Your task to perform on an android device: What's the weather going to be tomorrow? Image 0: 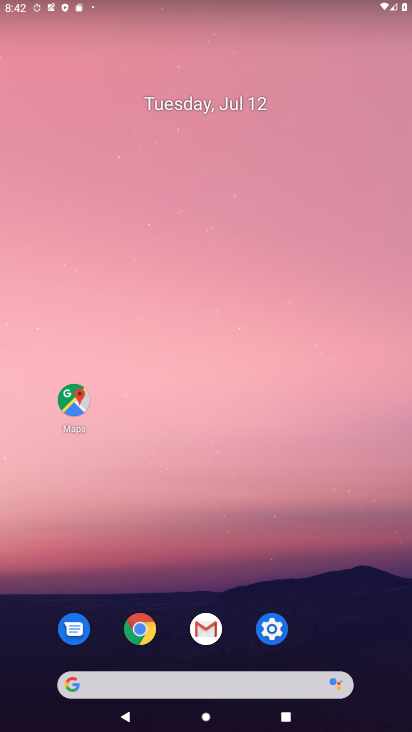
Step 0: click (232, 689)
Your task to perform on an android device: What's the weather going to be tomorrow? Image 1: 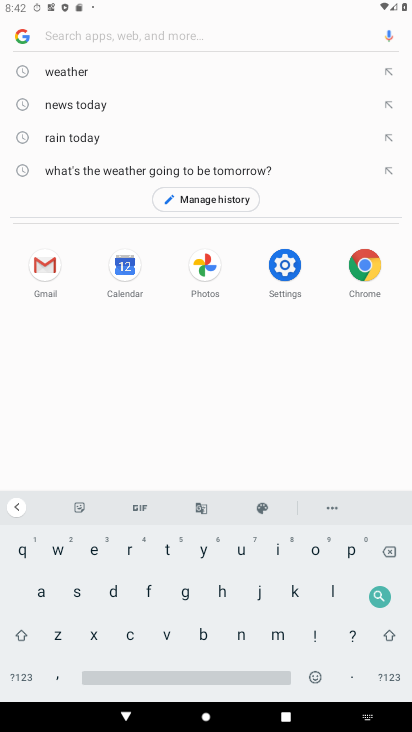
Step 1: click (87, 80)
Your task to perform on an android device: What's the weather going to be tomorrow? Image 2: 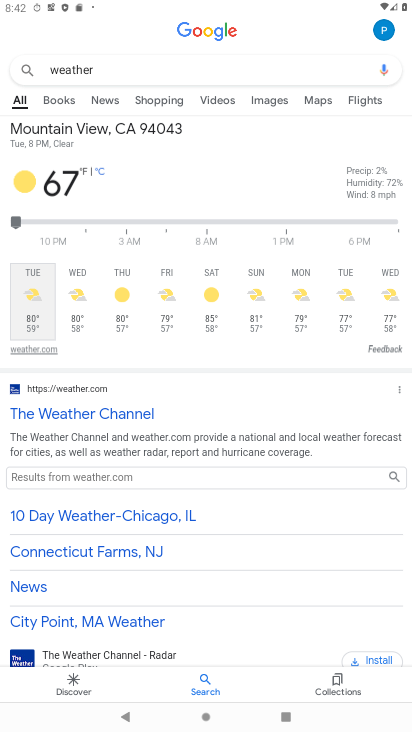
Step 2: click (81, 414)
Your task to perform on an android device: What's the weather going to be tomorrow? Image 3: 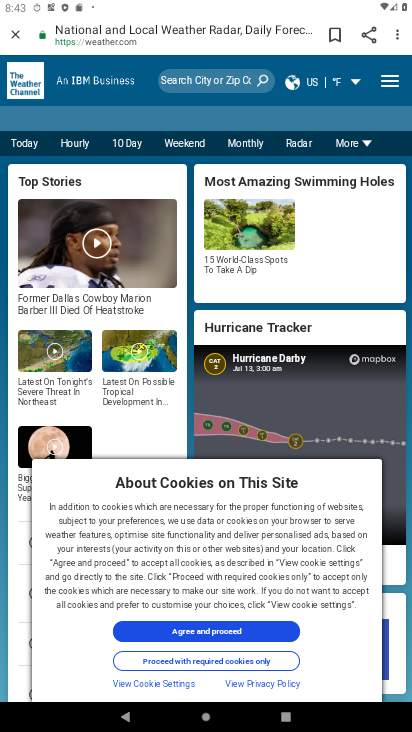
Step 3: click (111, 146)
Your task to perform on an android device: What's the weather going to be tomorrow? Image 4: 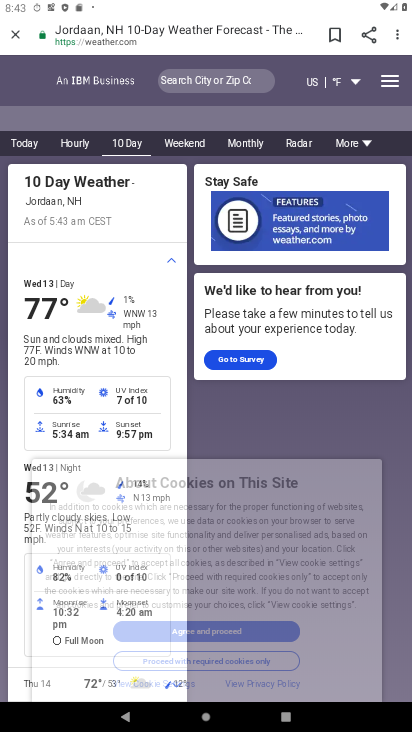
Step 4: click (95, 485)
Your task to perform on an android device: What's the weather going to be tomorrow? Image 5: 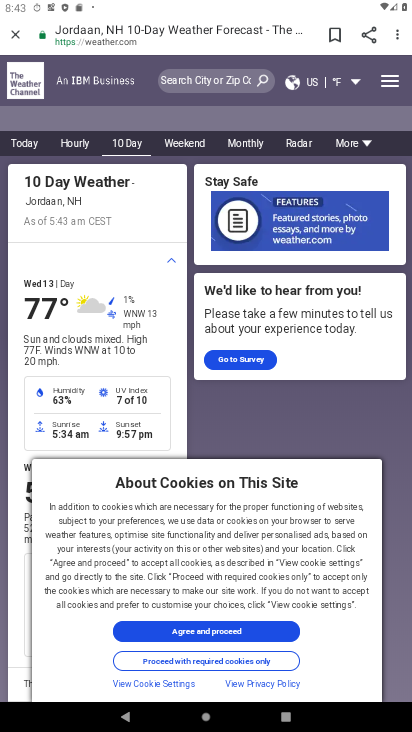
Step 5: click (184, 654)
Your task to perform on an android device: What's the weather going to be tomorrow? Image 6: 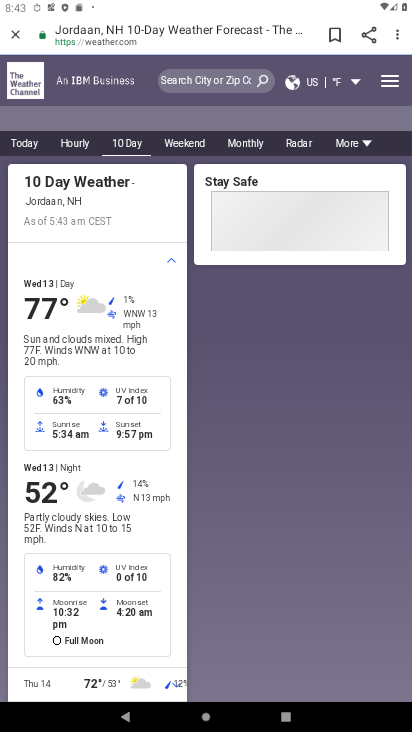
Step 6: click (82, 506)
Your task to perform on an android device: What's the weather going to be tomorrow? Image 7: 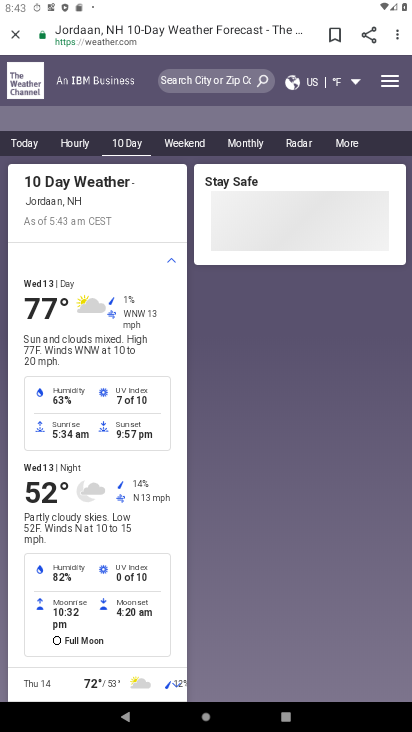
Step 7: task complete